Your task to perform on an android device: stop showing notifications on the lock screen Image 0: 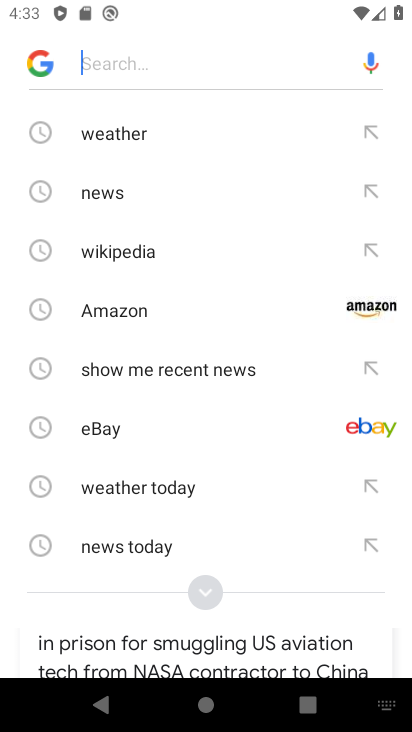
Step 0: press back button
Your task to perform on an android device: stop showing notifications on the lock screen Image 1: 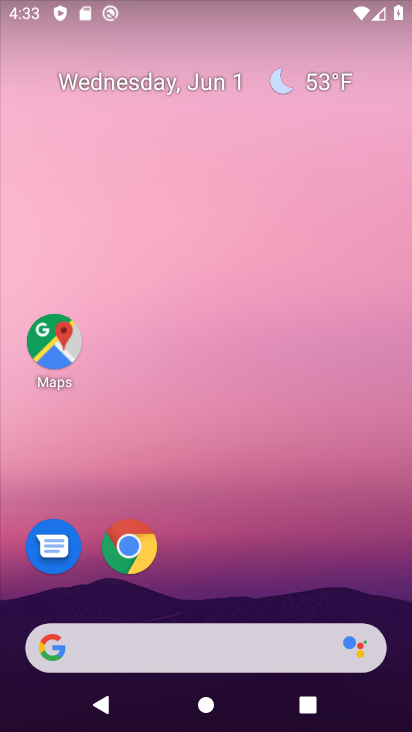
Step 1: drag from (257, 481) to (194, 25)
Your task to perform on an android device: stop showing notifications on the lock screen Image 2: 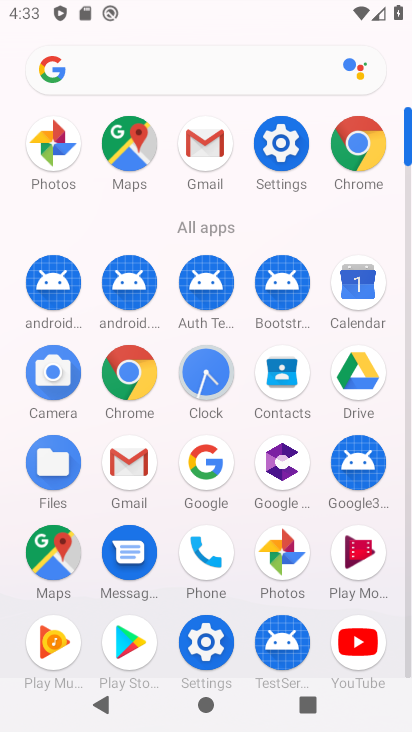
Step 2: click (204, 641)
Your task to perform on an android device: stop showing notifications on the lock screen Image 3: 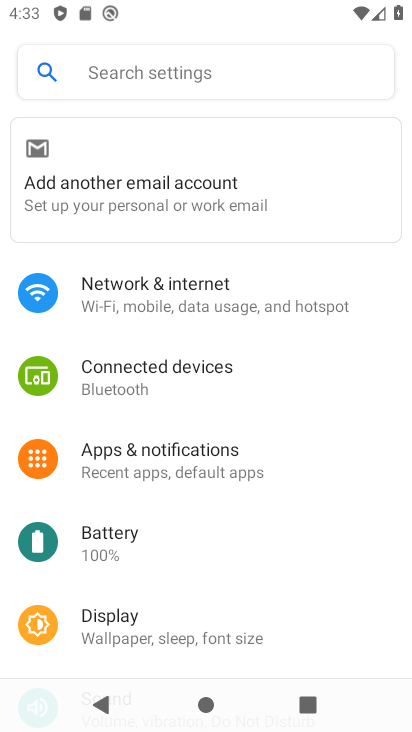
Step 3: click (204, 455)
Your task to perform on an android device: stop showing notifications on the lock screen Image 4: 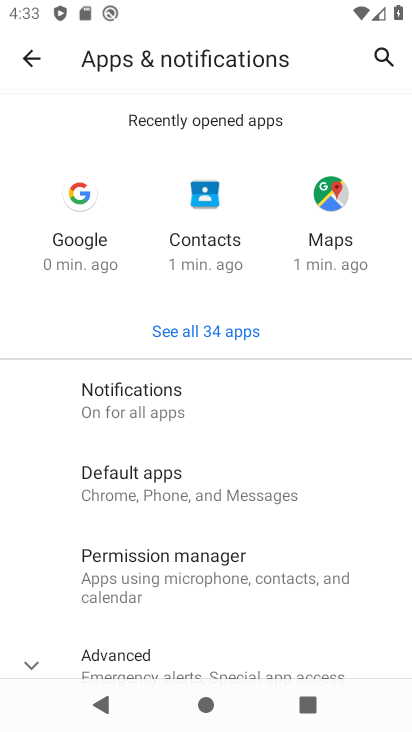
Step 4: click (27, 660)
Your task to perform on an android device: stop showing notifications on the lock screen Image 5: 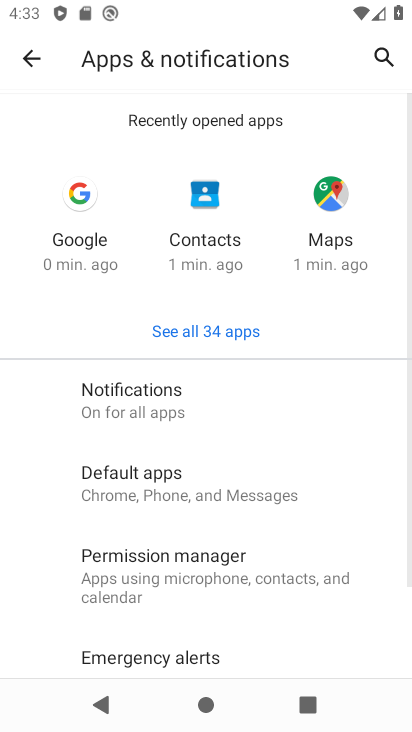
Step 5: click (160, 415)
Your task to perform on an android device: stop showing notifications on the lock screen Image 6: 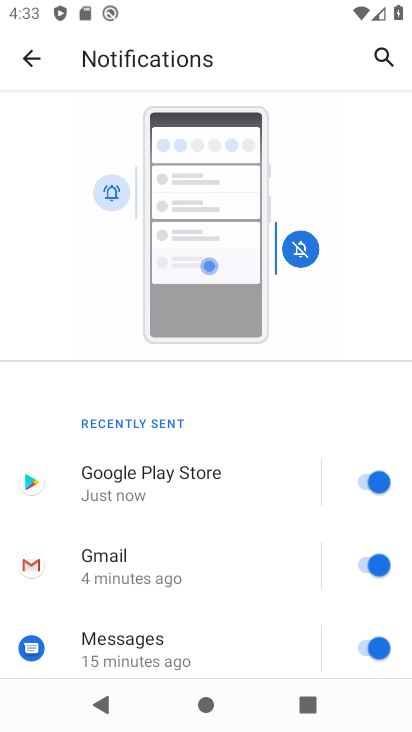
Step 6: drag from (243, 490) to (300, 99)
Your task to perform on an android device: stop showing notifications on the lock screen Image 7: 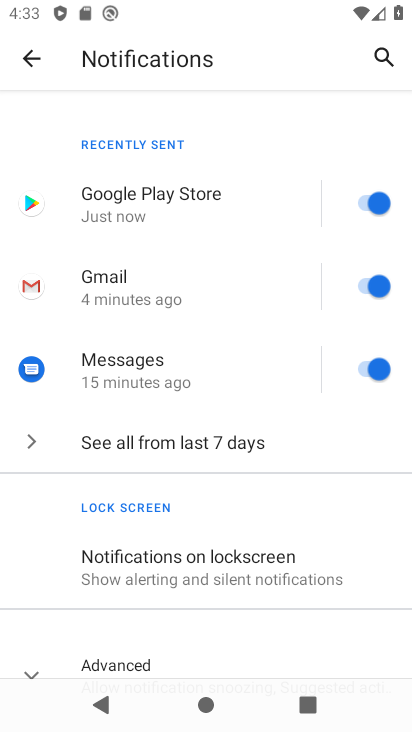
Step 7: drag from (271, 480) to (269, 222)
Your task to perform on an android device: stop showing notifications on the lock screen Image 8: 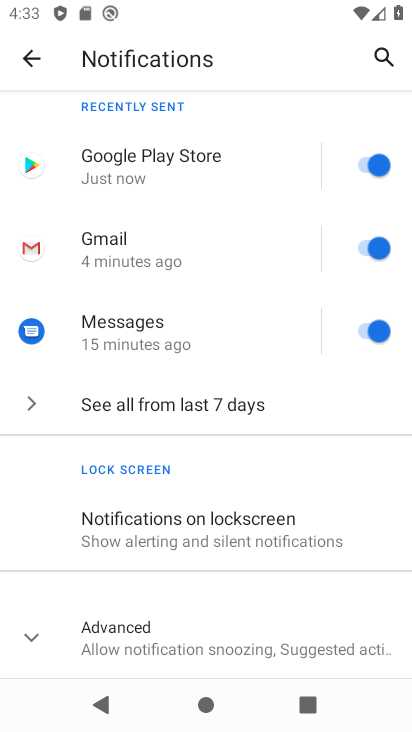
Step 8: click (52, 645)
Your task to perform on an android device: stop showing notifications on the lock screen Image 9: 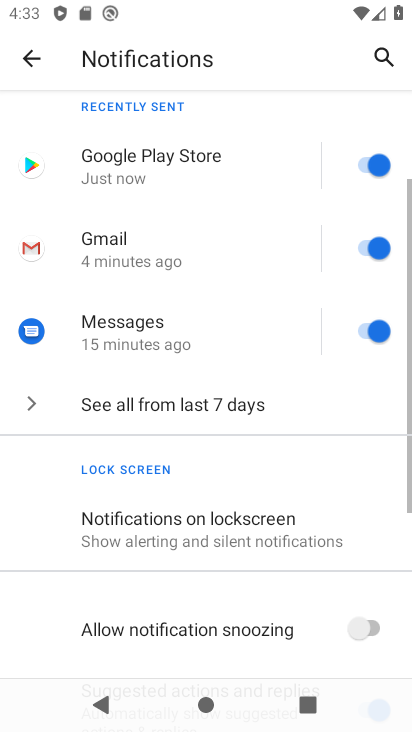
Step 9: drag from (230, 559) to (230, 160)
Your task to perform on an android device: stop showing notifications on the lock screen Image 10: 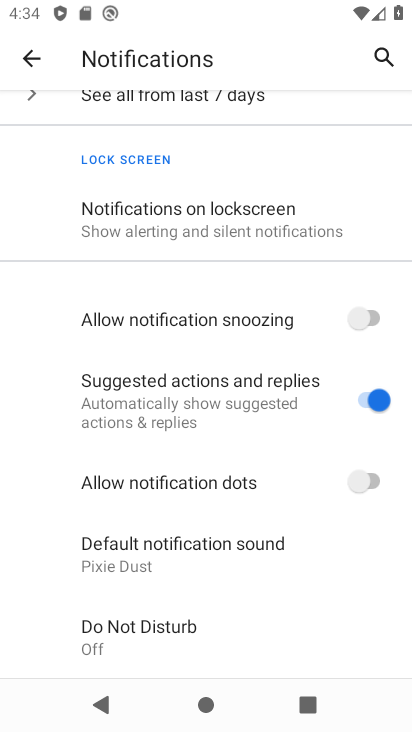
Step 10: click (225, 199)
Your task to perform on an android device: stop showing notifications on the lock screen Image 11: 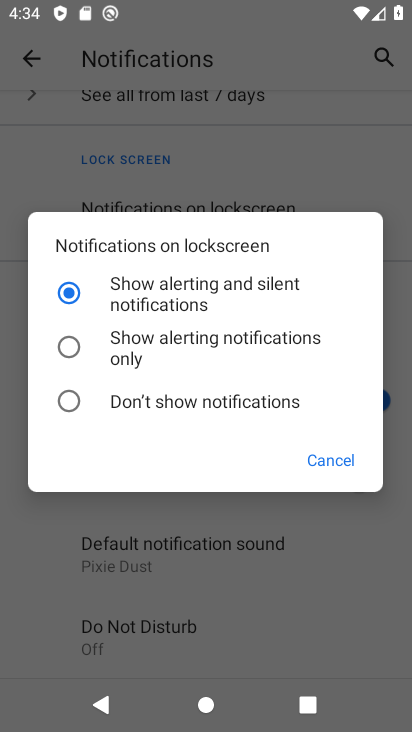
Step 11: click (207, 267)
Your task to perform on an android device: stop showing notifications on the lock screen Image 12: 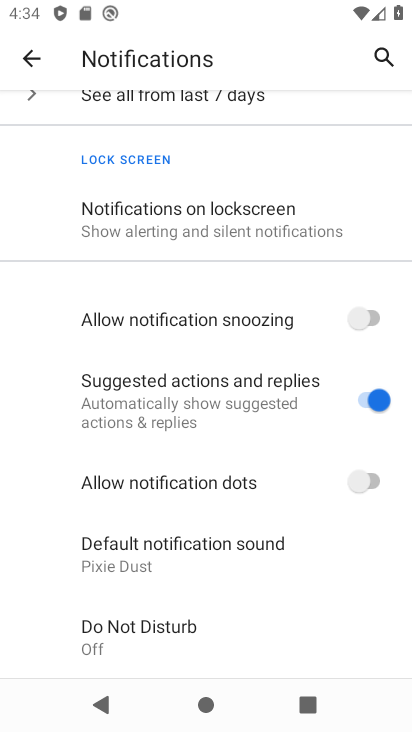
Step 12: click (221, 199)
Your task to perform on an android device: stop showing notifications on the lock screen Image 13: 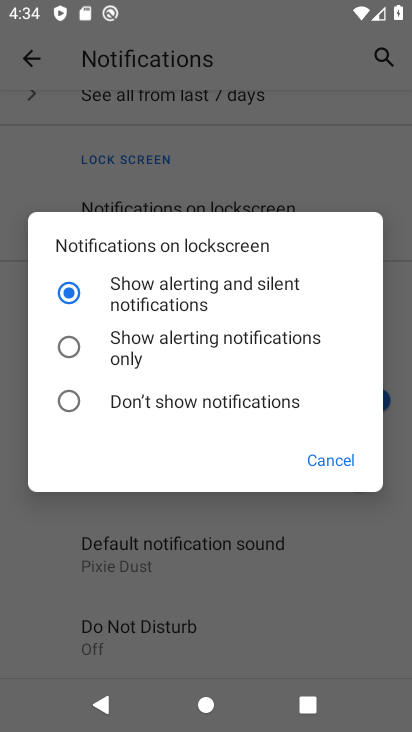
Step 13: click (221, 394)
Your task to perform on an android device: stop showing notifications on the lock screen Image 14: 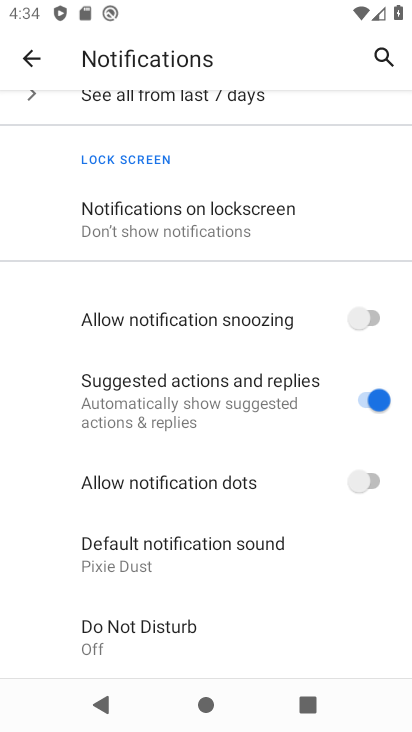
Step 14: task complete